Your task to perform on an android device: Search for "bose soundsport free" on costco.com, select the first entry, and add it to the cart. Image 0: 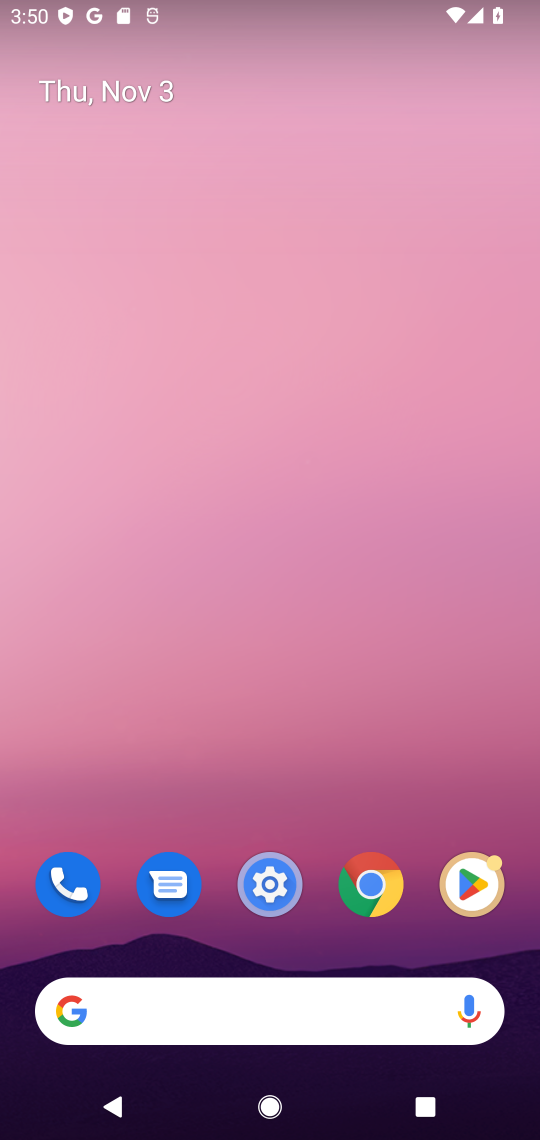
Step 0: press home button
Your task to perform on an android device: Search for "bose soundsport free" on costco.com, select the first entry, and add it to the cart. Image 1: 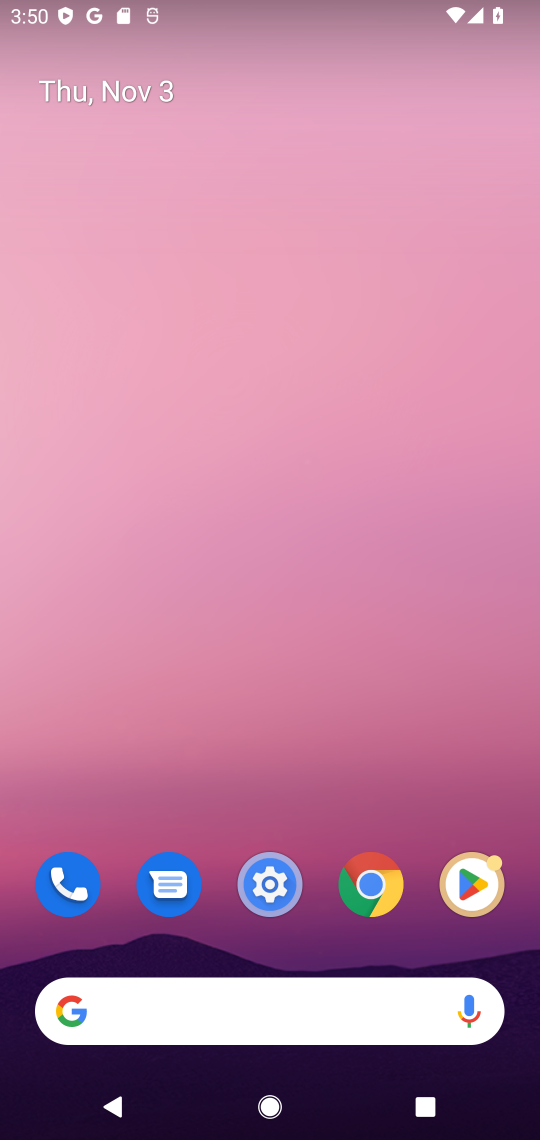
Step 1: click (105, 1007)
Your task to perform on an android device: Search for "bose soundsport free" on costco.com, select the first entry, and add it to the cart. Image 2: 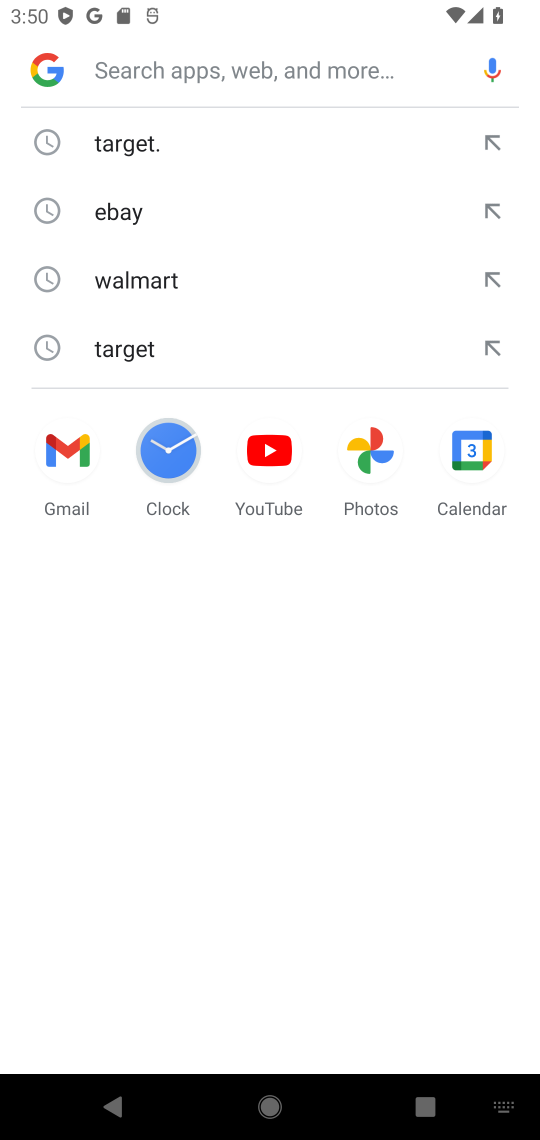
Step 2: type "costco.com"
Your task to perform on an android device: Search for "bose soundsport free" on costco.com, select the first entry, and add it to the cart. Image 3: 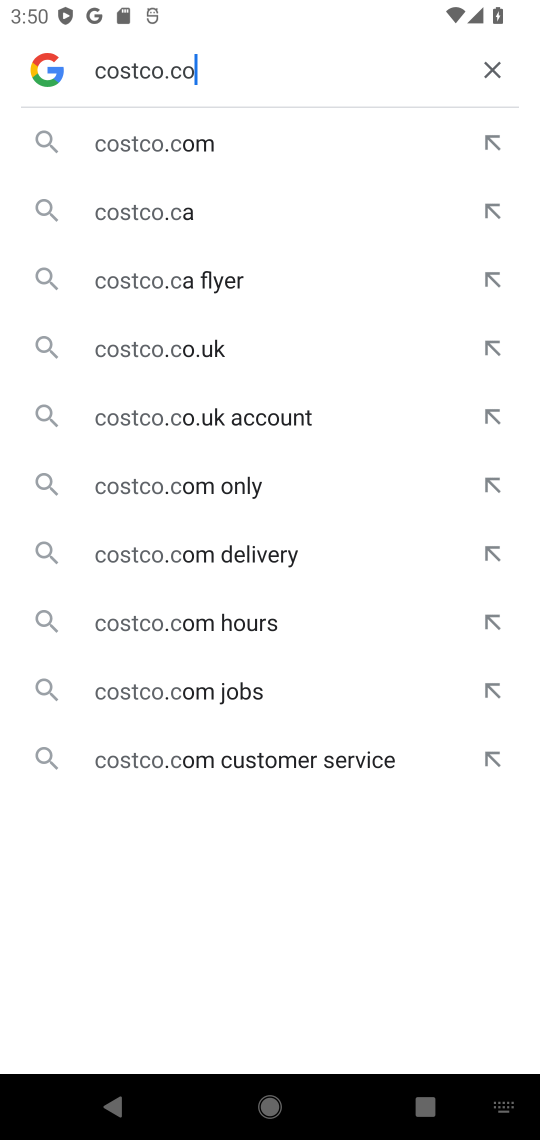
Step 3: press enter
Your task to perform on an android device: Search for "bose soundsport free" on costco.com, select the first entry, and add it to the cart. Image 4: 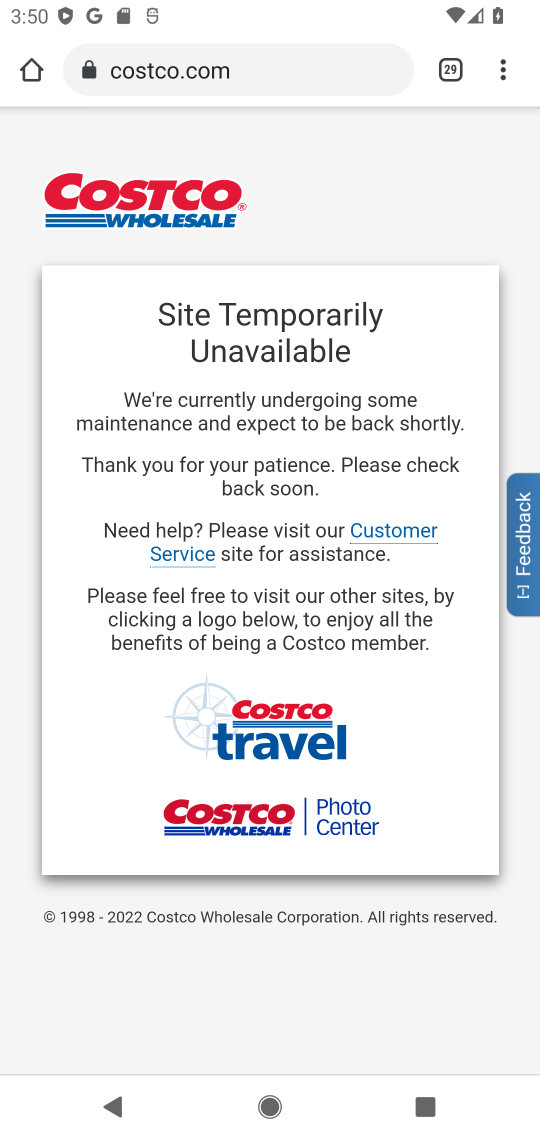
Step 4: task complete